Your task to perform on an android device: What's on my calendar tomorrow? Image 0: 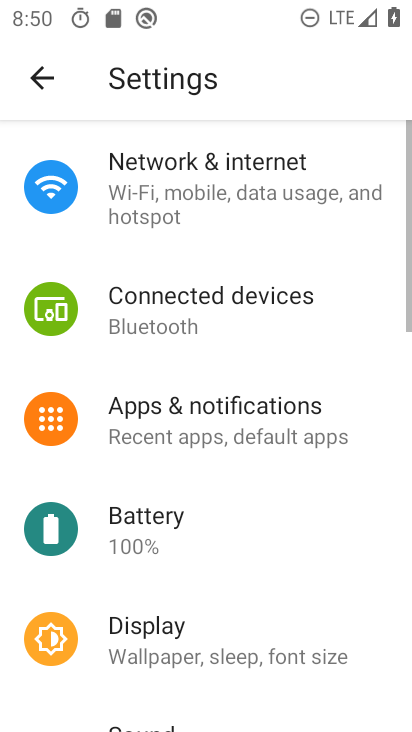
Step 0: press home button
Your task to perform on an android device: What's on my calendar tomorrow? Image 1: 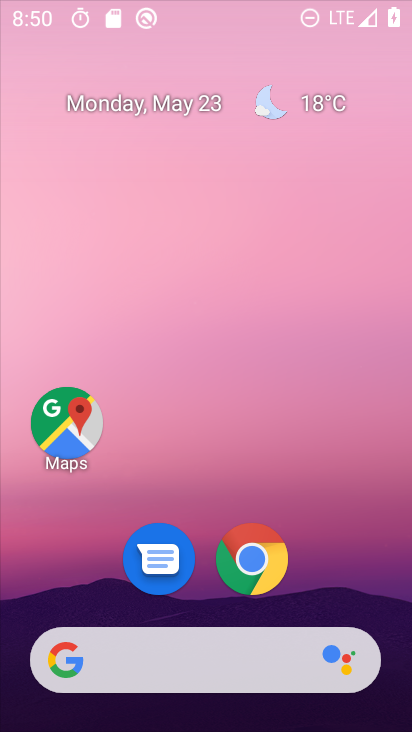
Step 1: drag from (390, 654) to (346, 85)
Your task to perform on an android device: What's on my calendar tomorrow? Image 2: 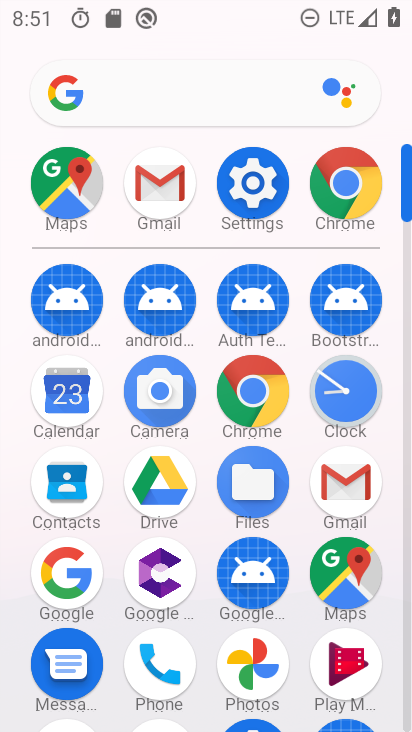
Step 2: click (73, 401)
Your task to perform on an android device: What's on my calendar tomorrow? Image 3: 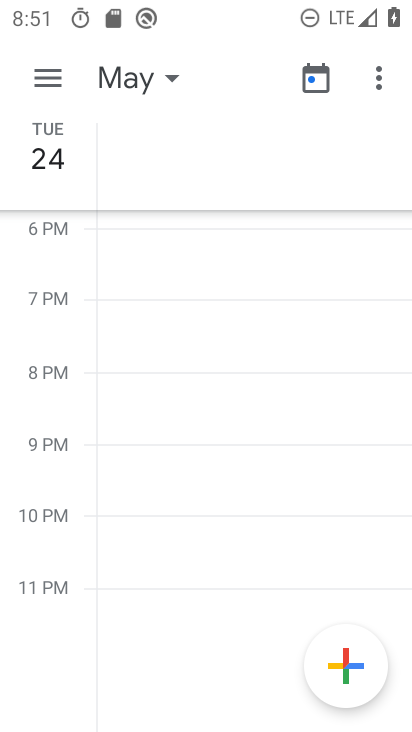
Step 3: click (131, 51)
Your task to perform on an android device: What's on my calendar tomorrow? Image 4: 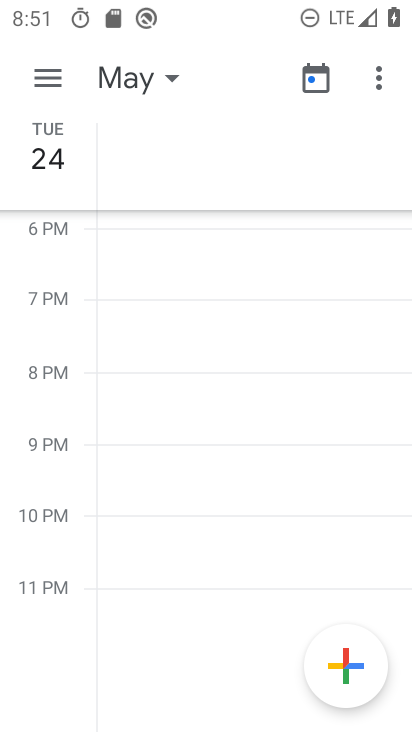
Step 4: click (131, 85)
Your task to perform on an android device: What's on my calendar tomorrow? Image 5: 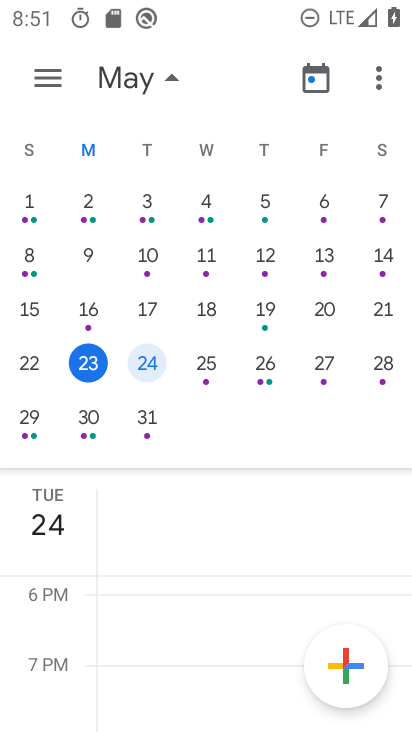
Step 5: click (205, 367)
Your task to perform on an android device: What's on my calendar tomorrow? Image 6: 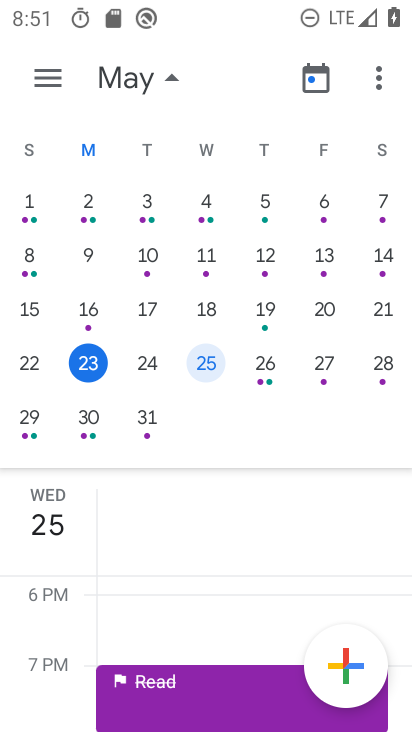
Step 6: drag from (168, 623) to (171, 417)
Your task to perform on an android device: What's on my calendar tomorrow? Image 7: 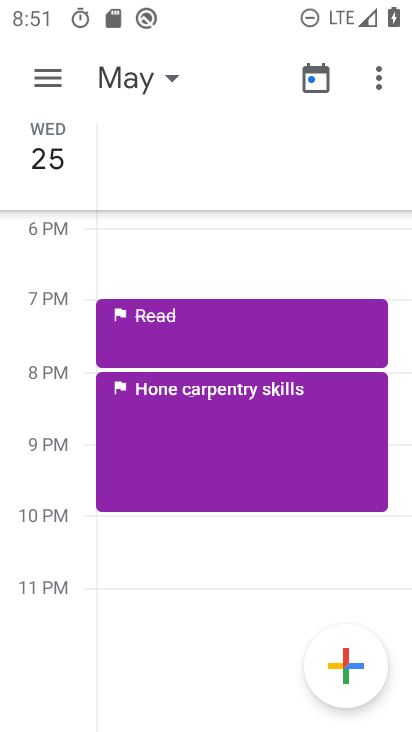
Step 7: click (199, 582)
Your task to perform on an android device: What's on my calendar tomorrow? Image 8: 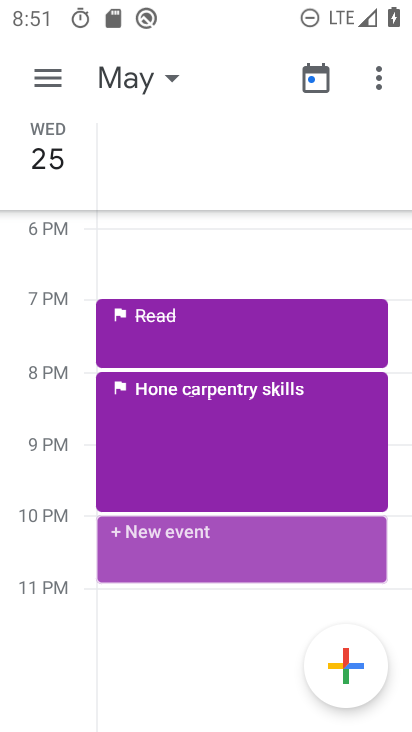
Step 8: click (182, 468)
Your task to perform on an android device: What's on my calendar tomorrow? Image 9: 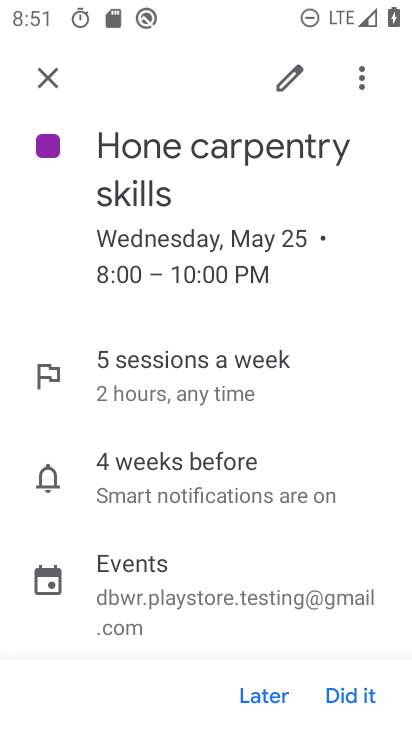
Step 9: task complete